Your task to perform on an android device: Open internet settings Image 0: 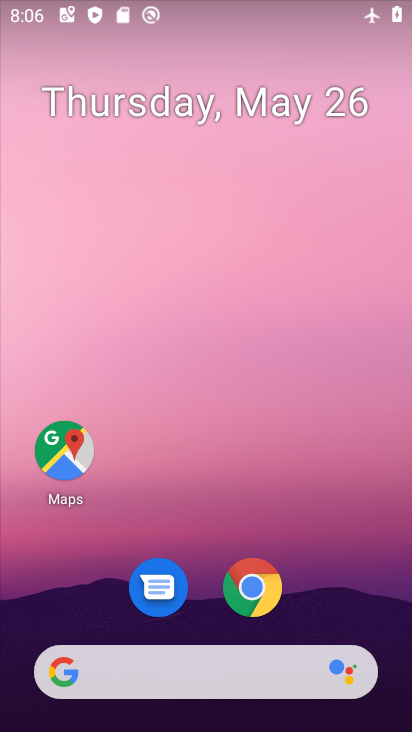
Step 0: drag from (211, 628) to (163, 240)
Your task to perform on an android device: Open internet settings Image 1: 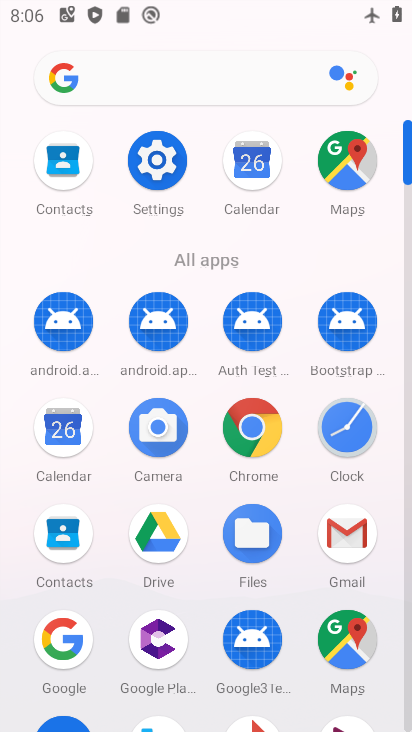
Step 1: click (157, 186)
Your task to perform on an android device: Open internet settings Image 2: 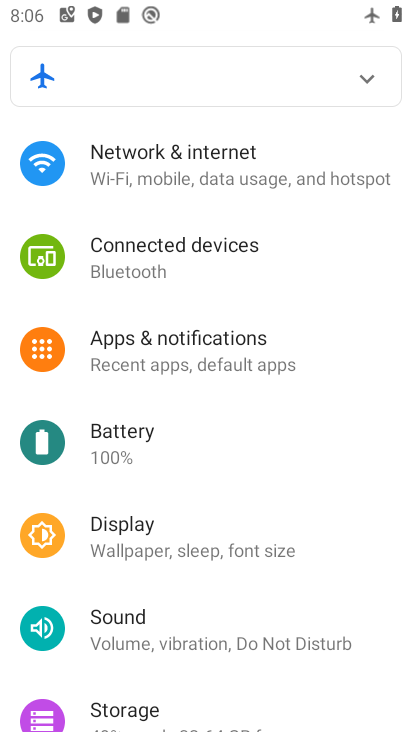
Step 2: click (157, 186)
Your task to perform on an android device: Open internet settings Image 3: 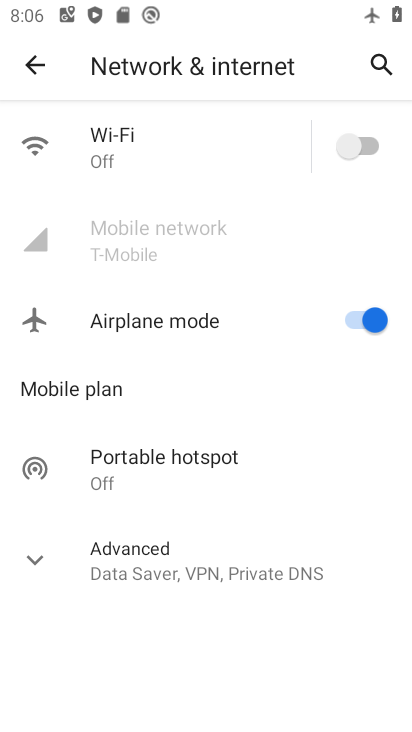
Step 3: task complete